Your task to perform on an android device: turn vacation reply on in the gmail app Image 0: 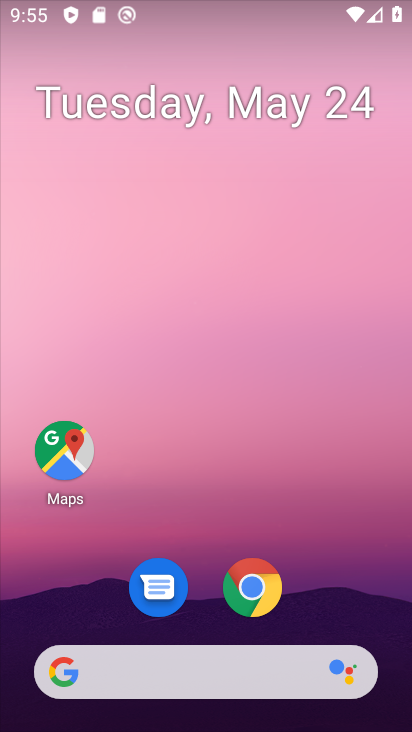
Step 0: drag from (373, 608) to (349, 9)
Your task to perform on an android device: turn vacation reply on in the gmail app Image 1: 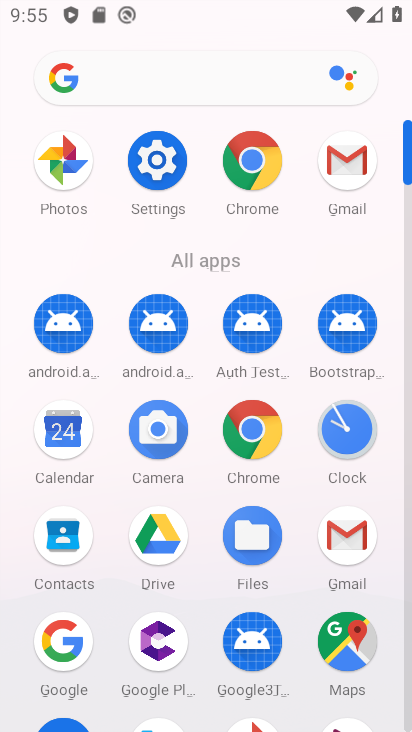
Step 1: click (330, 545)
Your task to perform on an android device: turn vacation reply on in the gmail app Image 2: 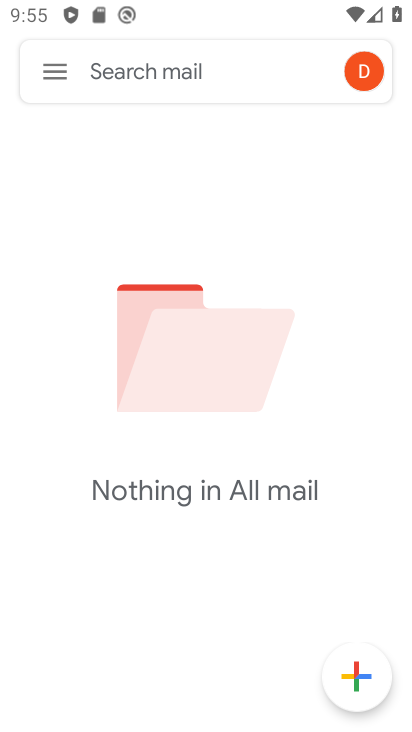
Step 2: click (49, 90)
Your task to perform on an android device: turn vacation reply on in the gmail app Image 3: 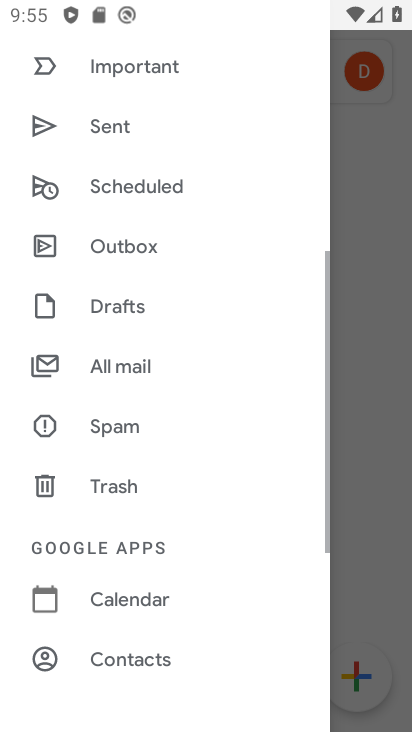
Step 3: drag from (173, 507) to (173, 4)
Your task to perform on an android device: turn vacation reply on in the gmail app Image 4: 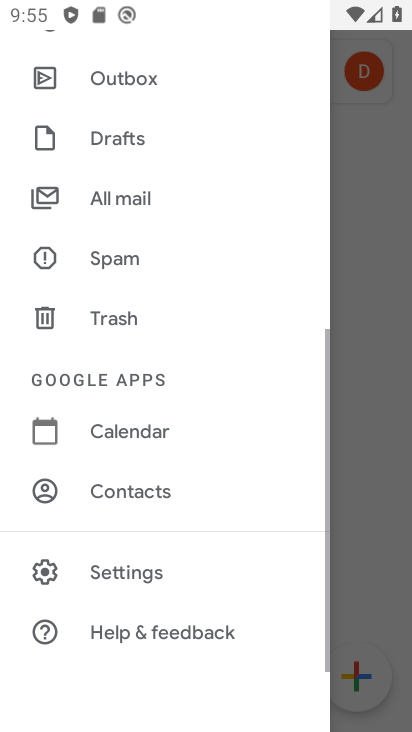
Step 4: click (160, 585)
Your task to perform on an android device: turn vacation reply on in the gmail app Image 5: 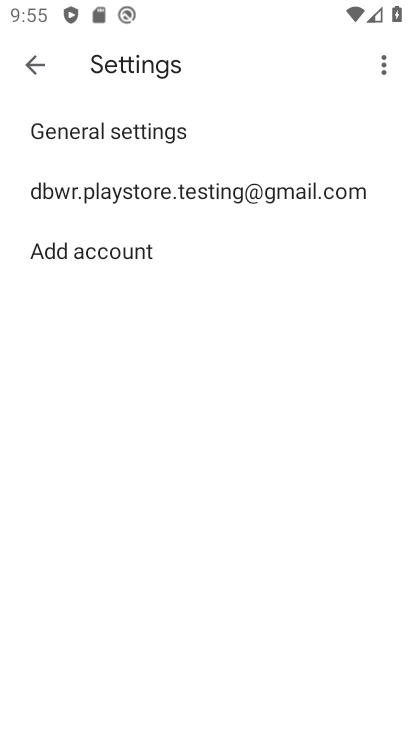
Step 5: click (281, 188)
Your task to perform on an android device: turn vacation reply on in the gmail app Image 6: 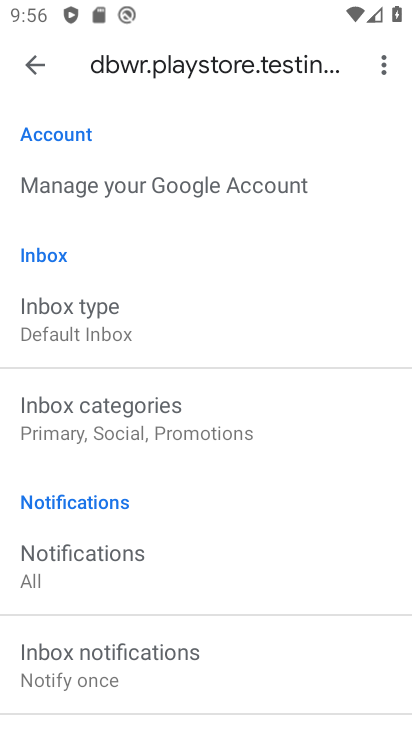
Step 6: drag from (233, 695) to (229, 123)
Your task to perform on an android device: turn vacation reply on in the gmail app Image 7: 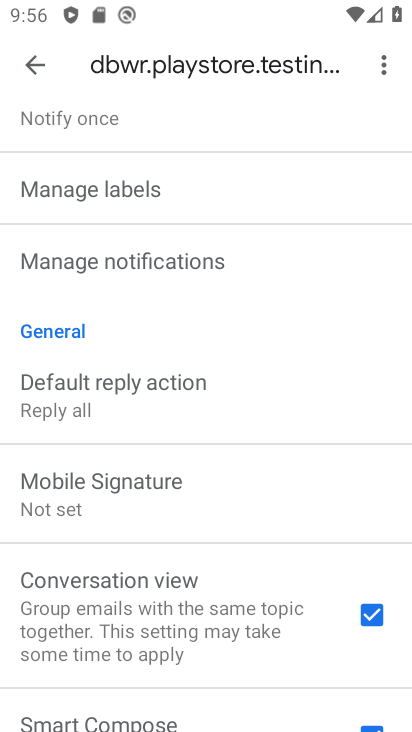
Step 7: drag from (239, 641) to (209, 178)
Your task to perform on an android device: turn vacation reply on in the gmail app Image 8: 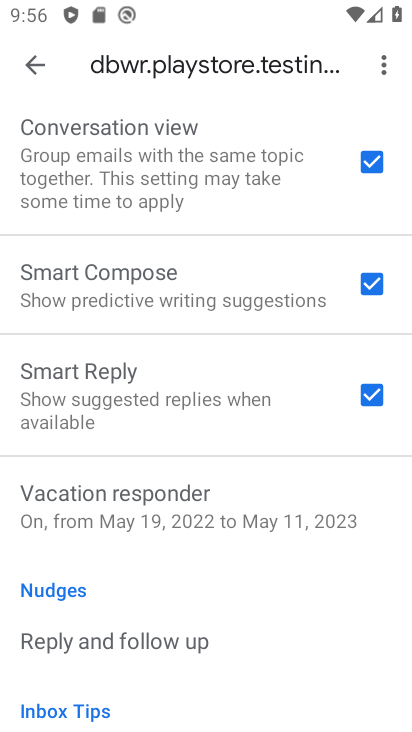
Step 8: click (203, 518)
Your task to perform on an android device: turn vacation reply on in the gmail app Image 9: 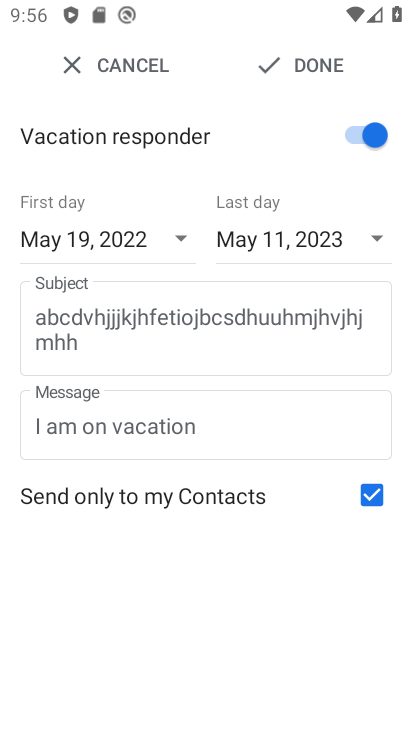
Step 9: click (137, 235)
Your task to perform on an android device: turn vacation reply on in the gmail app Image 10: 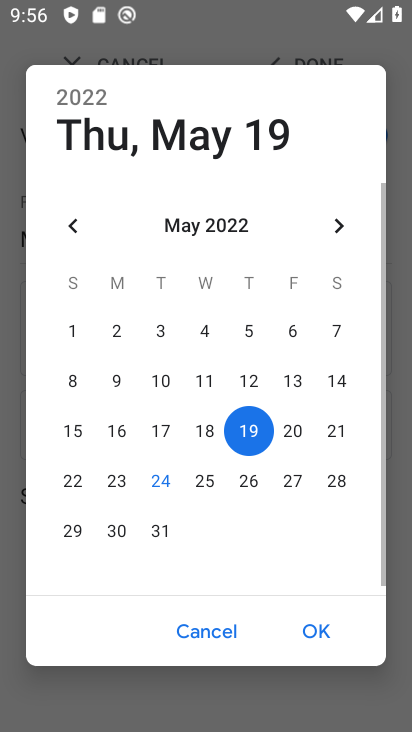
Step 10: click (216, 479)
Your task to perform on an android device: turn vacation reply on in the gmail app Image 11: 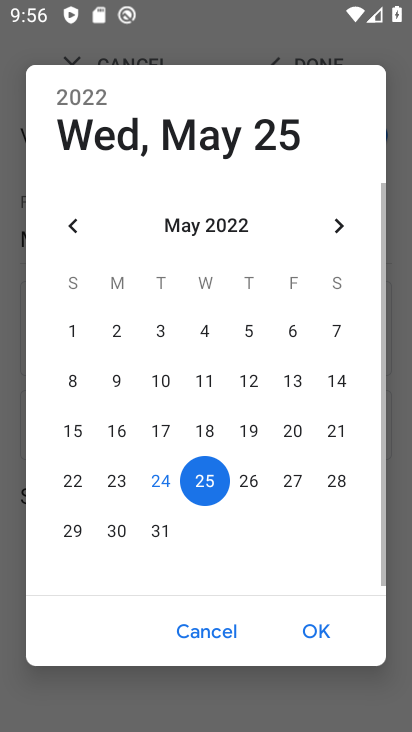
Step 11: click (306, 631)
Your task to perform on an android device: turn vacation reply on in the gmail app Image 12: 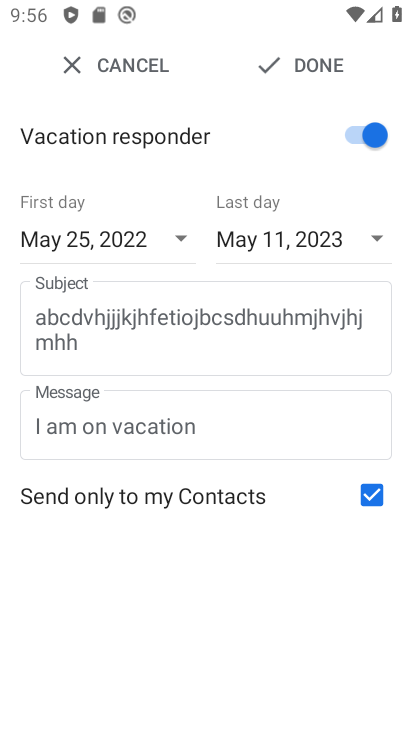
Step 12: click (314, 66)
Your task to perform on an android device: turn vacation reply on in the gmail app Image 13: 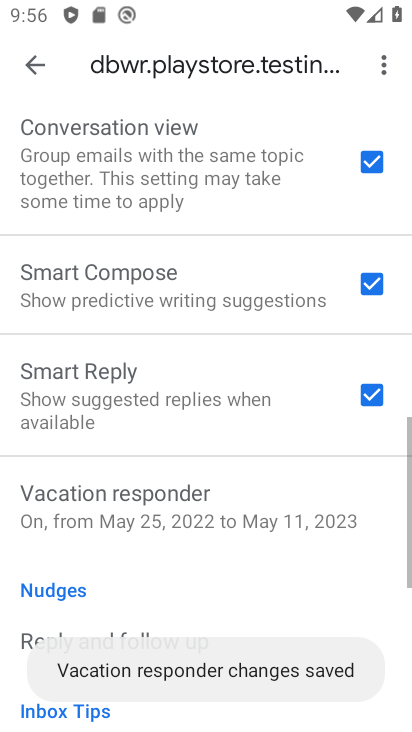
Step 13: task complete